Your task to perform on an android device: empty trash in the gmail app Image 0: 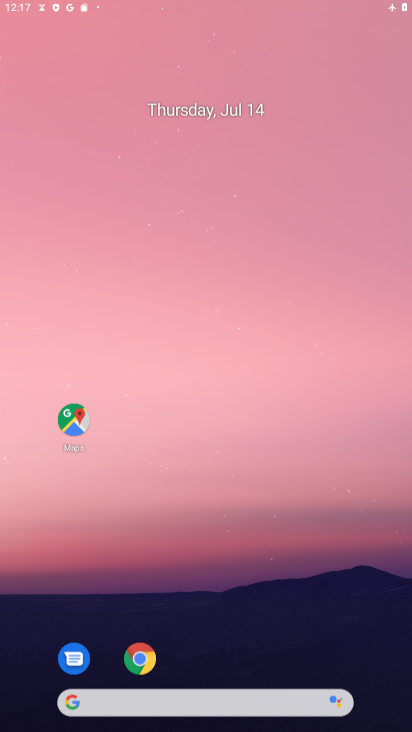
Step 0: click (235, 131)
Your task to perform on an android device: empty trash in the gmail app Image 1: 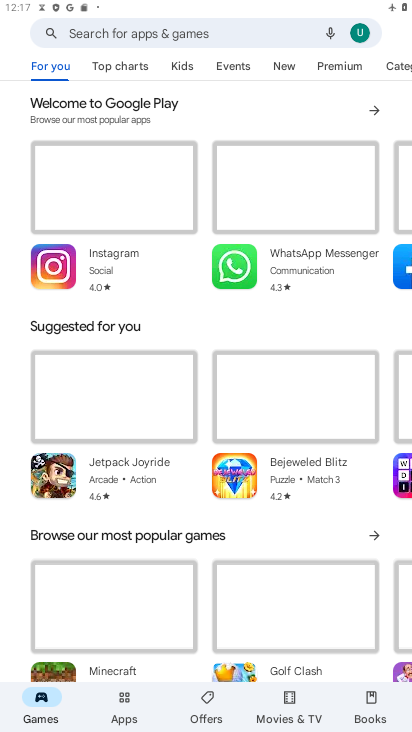
Step 1: press home button
Your task to perform on an android device: empty trash in the gmail app Image 2: 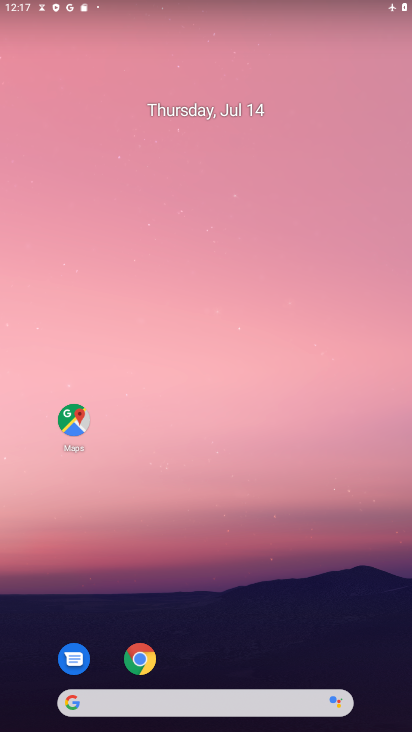
Step 2: drag from (227, 338) to (388, 310)
Your task to perform on an android device: empty trash in the gmail app Image 3: 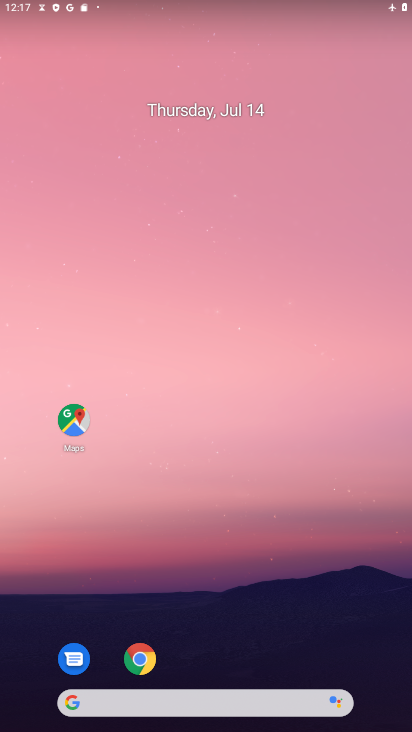
Step 3: drag from (16, 693) to (356, 39)
Your task to perform on an android device: empty trash in the gmail app Image 4: 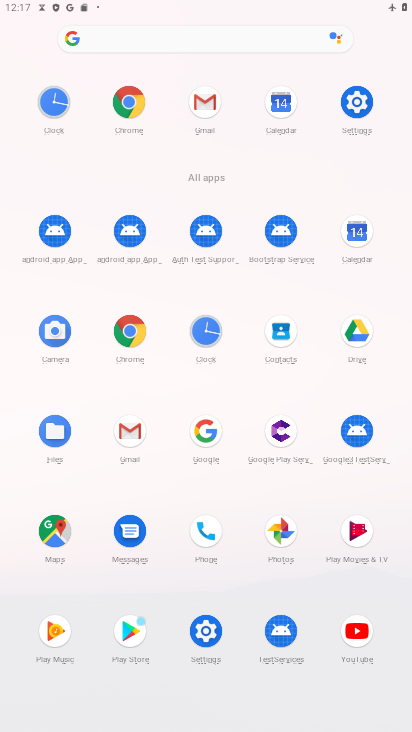
Step 4: click (122, 442)
Your task to perform on an android device: empty trash in the gmail app Image 5: 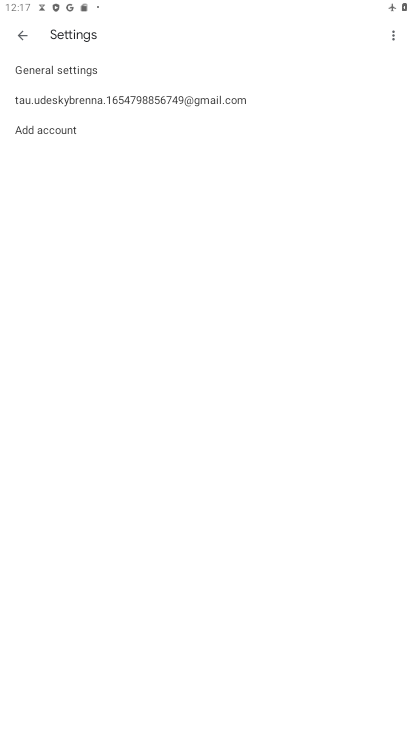
Step 5: click (20, 36)
Your task to perform on an android device: empty trash in the gmail app Image 6: 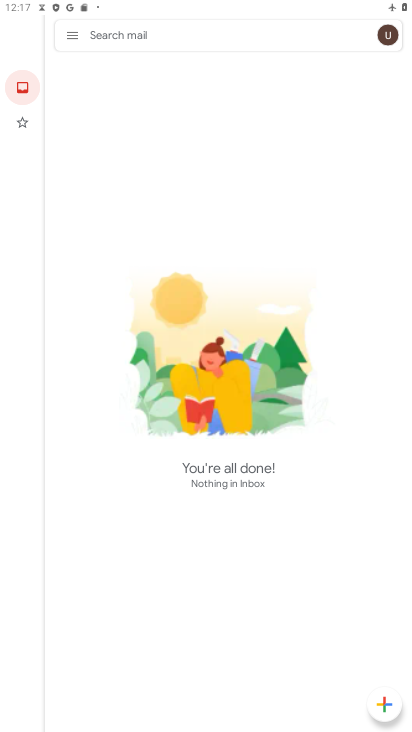
Step 6: click (70, 39)
Your task to perform on an android device: empty trash in the gmail app Image 7: 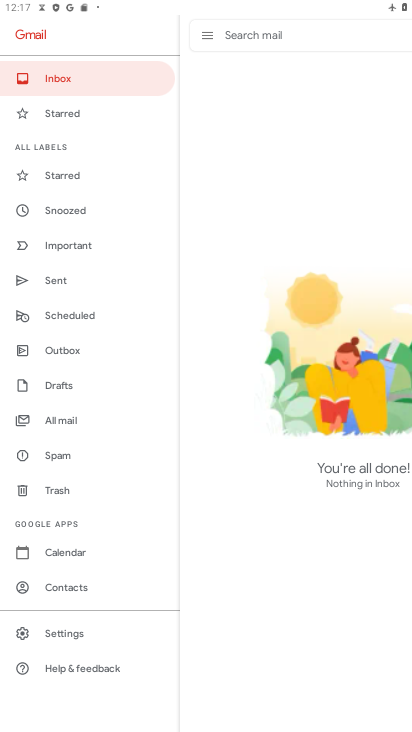
Step 7: click (74, 495)
Your task to perform on an android device: empty trash in the gmail app Image 8: 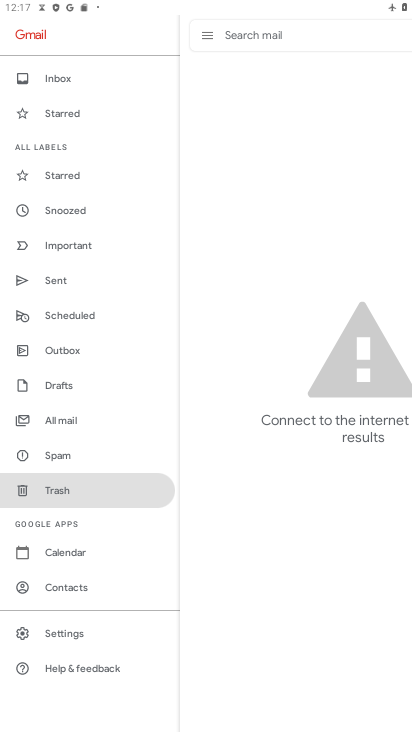
Step 8: task complete